Your task to perform on an android device: empty trash in google photos Image 0: 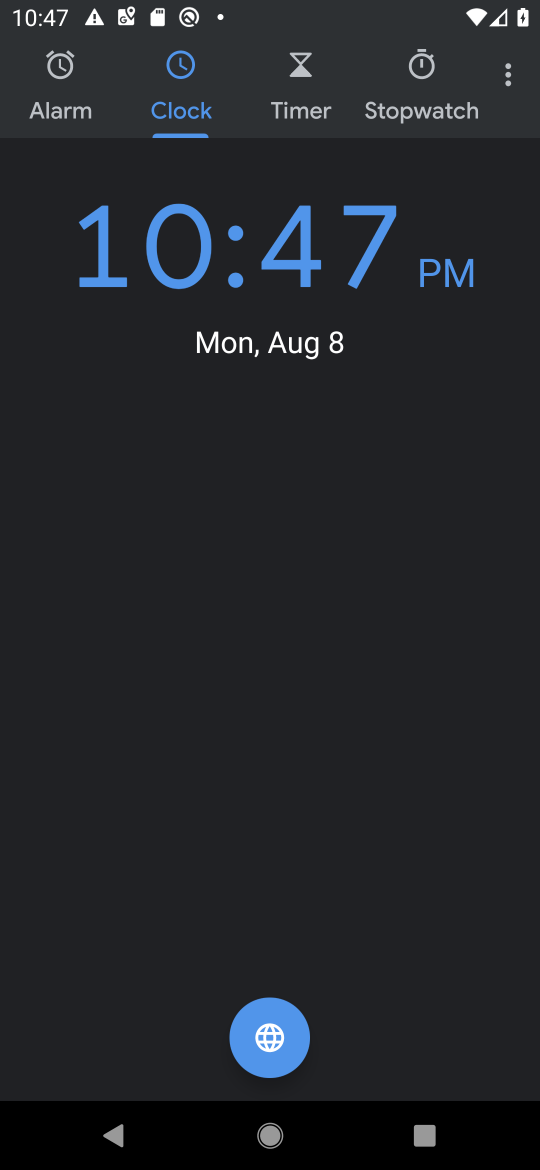
Step 0: press home button
Your task to perform on an android device: empty trash in google photos Image 1: 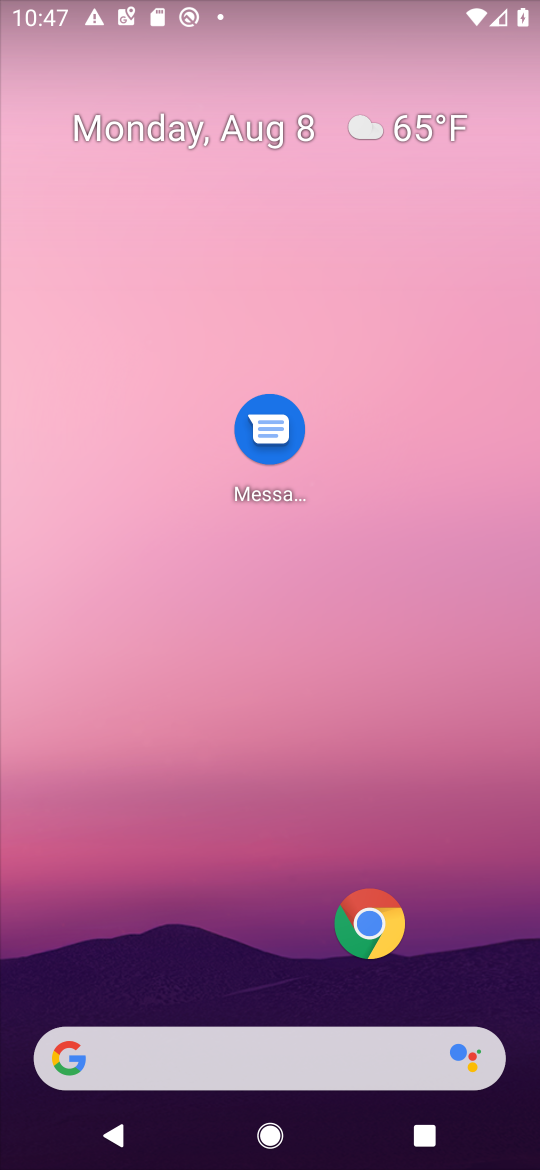
Step 1: task complete